Your task to perform on an android device: What's the weather going to be tomorrow? Image 0: 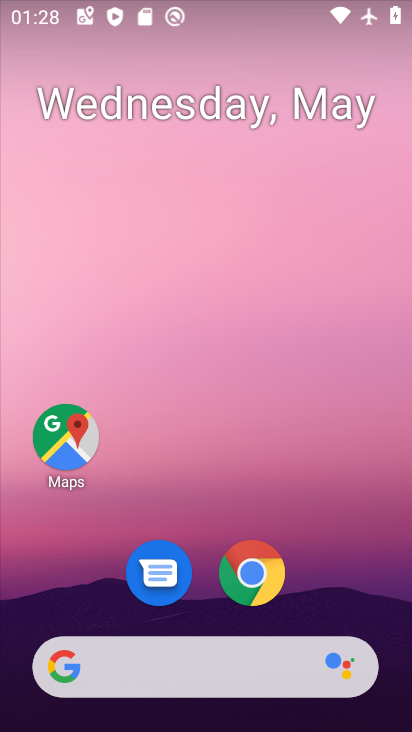
Step 0: drag from (285, 606) to (289, 265)
Your task to perform on an android device: What's the weather going to be tomorrow? Image 1: 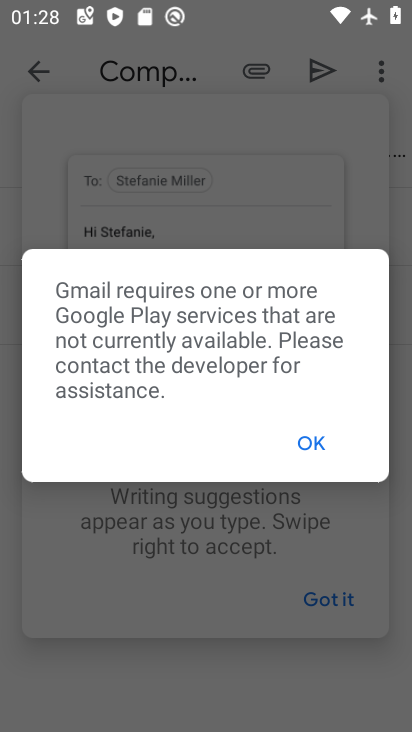
Step 1: click (301, 444)
Your task to perform on an android device: What's the weather going to be tomorrow? Image 2: 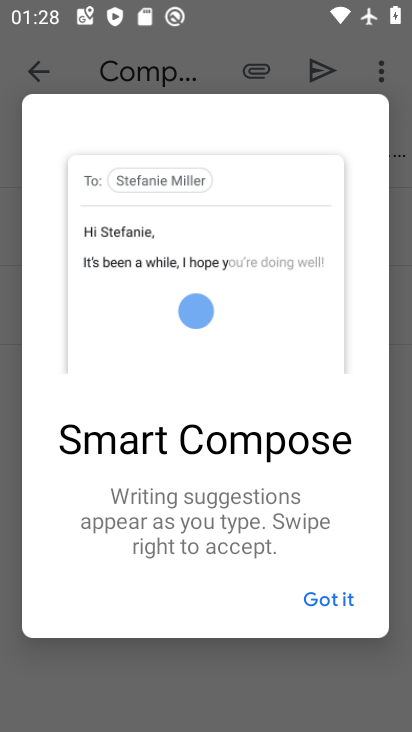
Step 2: press home button
Your task to perform on an android device: What's the weather going to be tomorrow? Image 3: 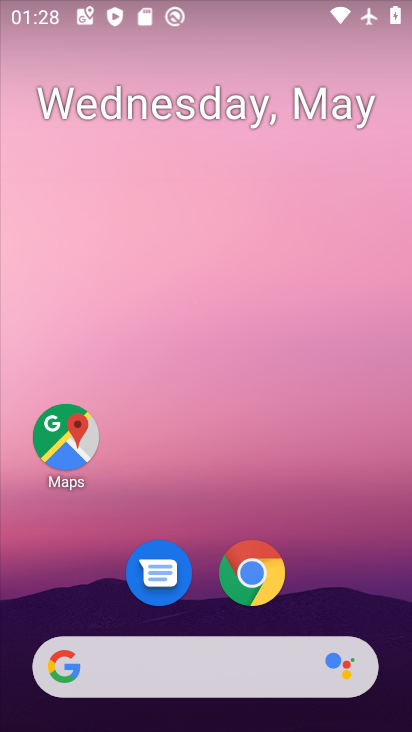
Step 3: click (258, 569)
Your task to perform on an android device: What's the weather going to be tomorrow? Image 4: 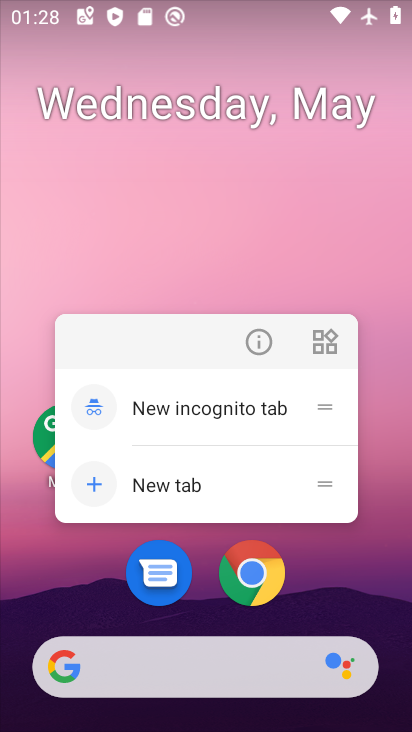
Step 4: click (233, 571)
Your task to perform on an android device: What's the weather going to be tomorrow? Image 5: 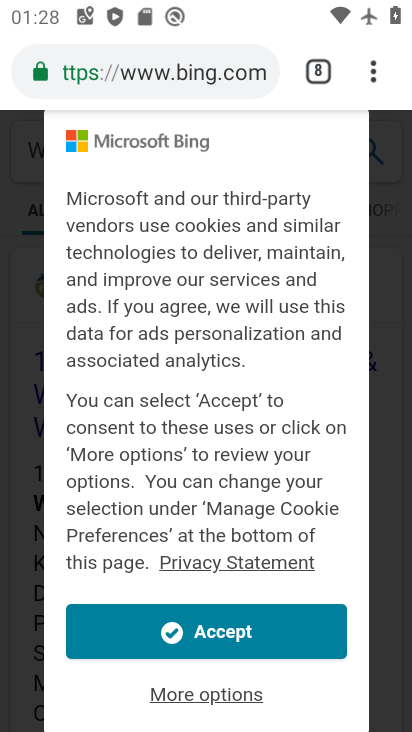
Step 5: click (373, 67)
Your task to perform on an android device: What's the weather going to be tomorrow? Image 6: 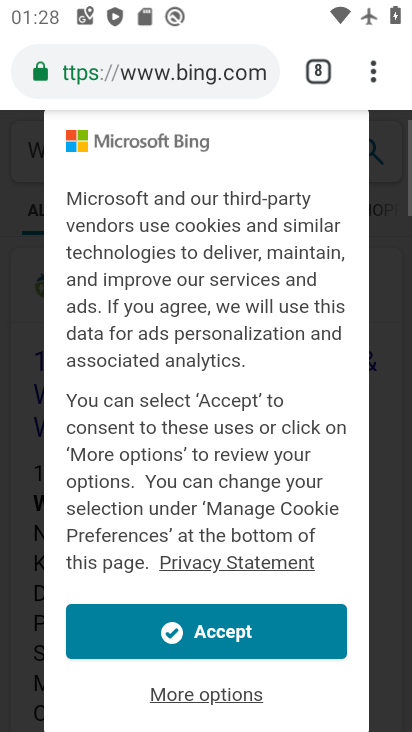
Step 6: click (394, 52)
Your task to perform on an android device: What's the weather going to be tomorrow? Image 7: 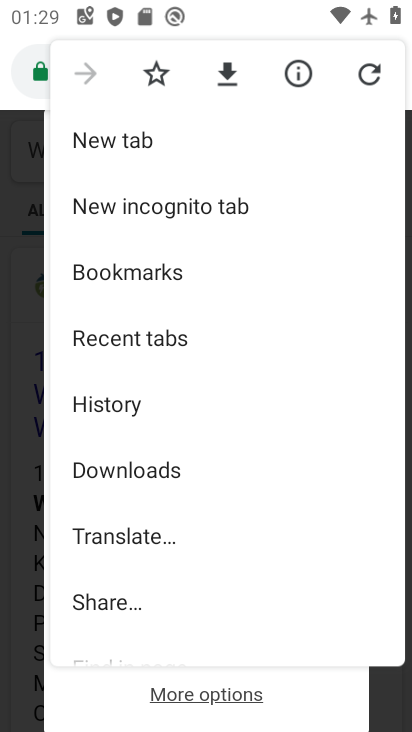
Step 7: click (152, 139)
Your task to perform on an android device: What's the weather going to be tomorrow? Image 8: 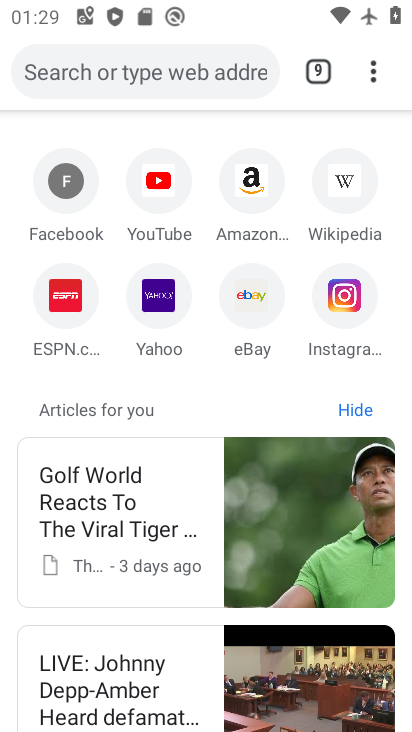
Step 8: click (177, 68)
Your task to perform on an android device: What's the weather going to be tomorrow? Image 9: 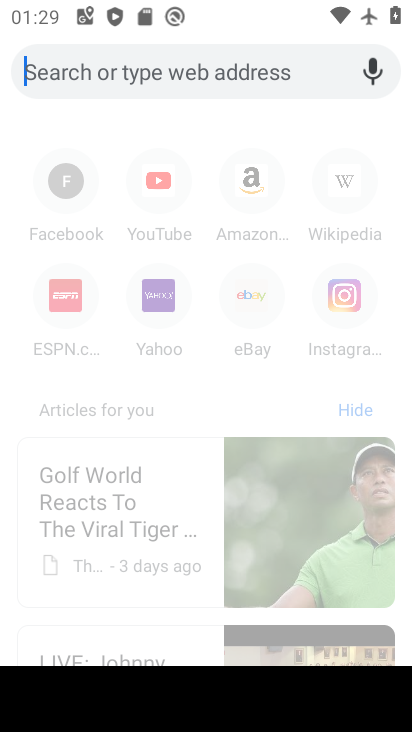
Step 9: type "What's the weather going to be tomorrow?"
Your task to perform on an android device: What's the weather going to be tomorrow? Image 10: 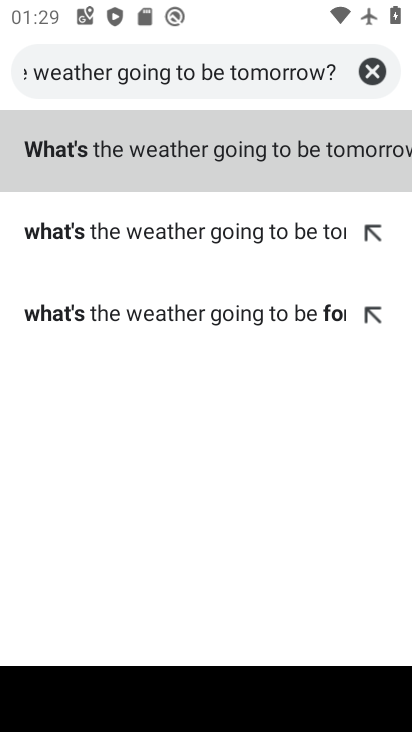
Step 10: click (204, 158)
Your task to perform on an android device: What's the weather going to be tomorrow? Image 11: 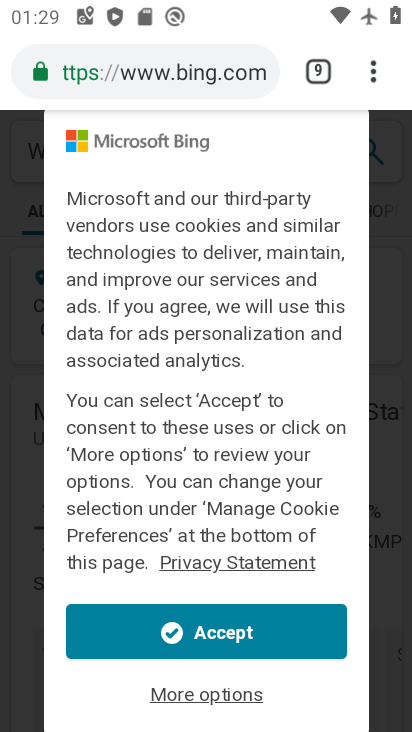
Step 11: task complete